Your task to perform on an android device: check android version Image 0: 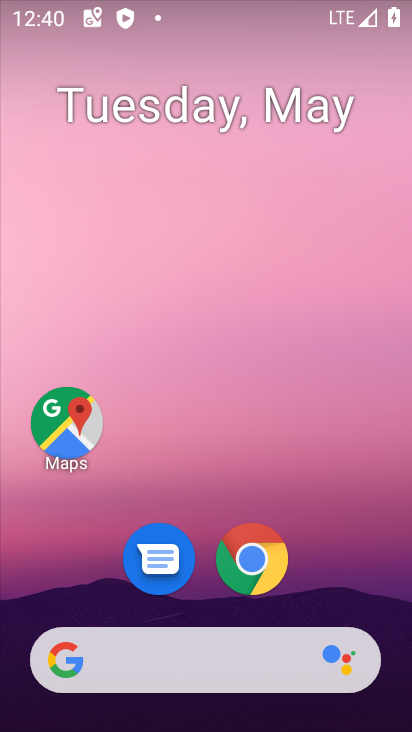
Step 0: drag from (336, 579) to (326, 132)
Your task to perform on an android device: check android version Image 1: 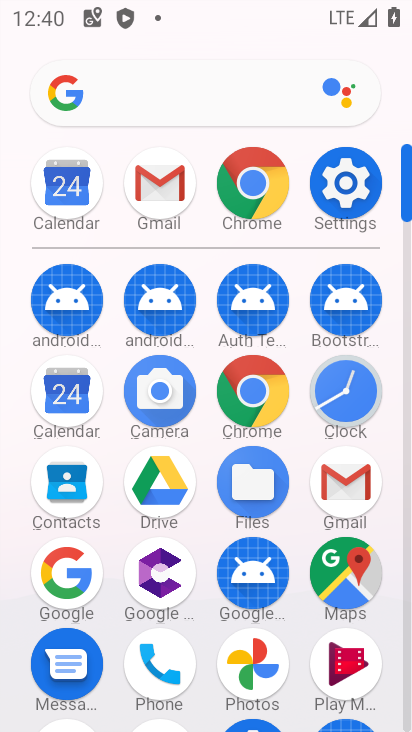
Step 1: click (347, 201)
Your task to perform on an android device: check android version Image 2: 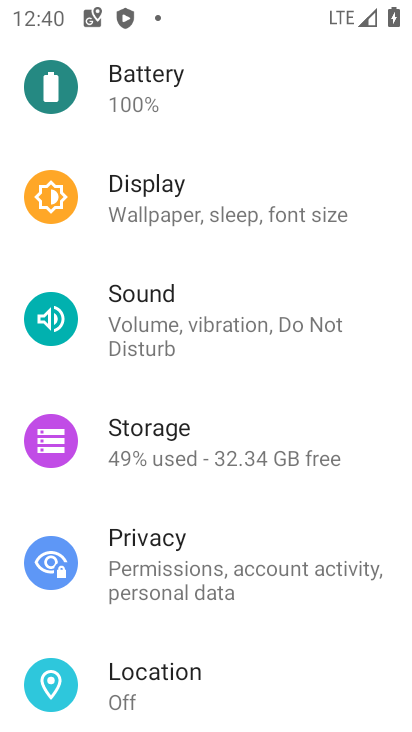
Step 2: task complete